Your task to perform on an android device: Open Yahoo.com Image 0: 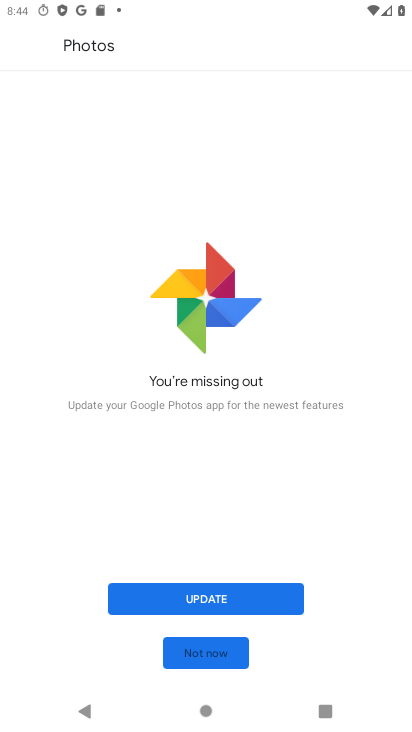
Step 0: press back button
Your task to perform on an android device: Open Yahoo.com Image 1: 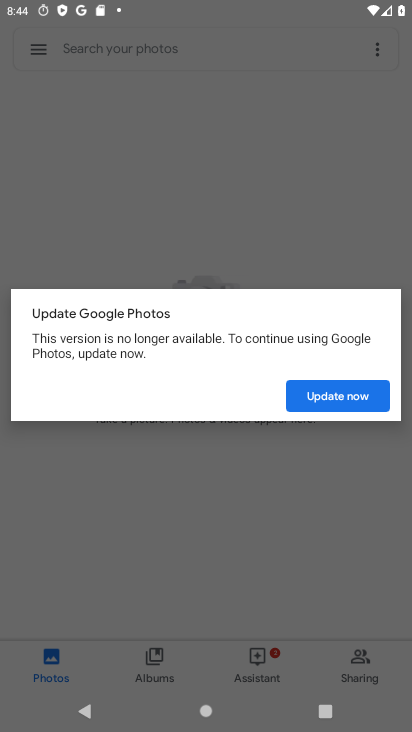
Step 1: press home button
Your task to perform on an android device: Open Yahoo.com Image 2: 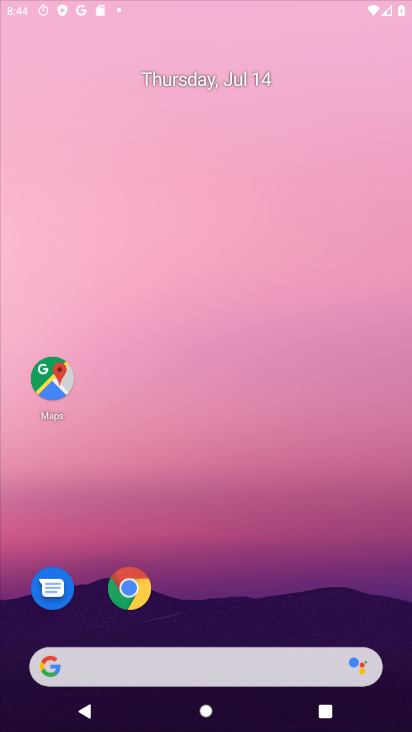
Step 2: click (201, 190)
Your task to perform on an android device: Open Yahoo.com Image 3: 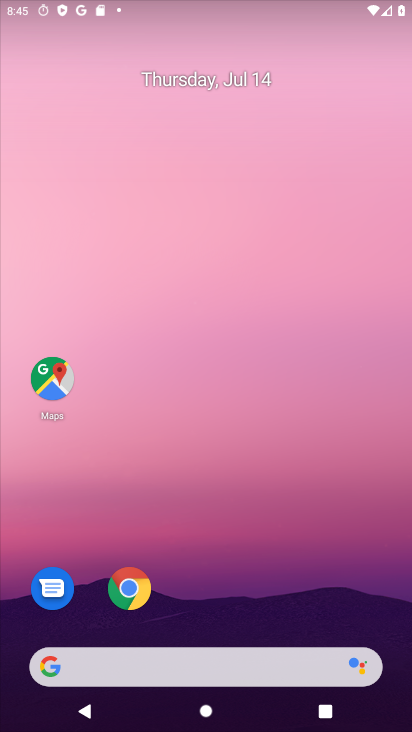
Step 3: drag from (230, 729) to (160, 205)
Your task to perform on an android device: Open Yahoo.com Image 4: 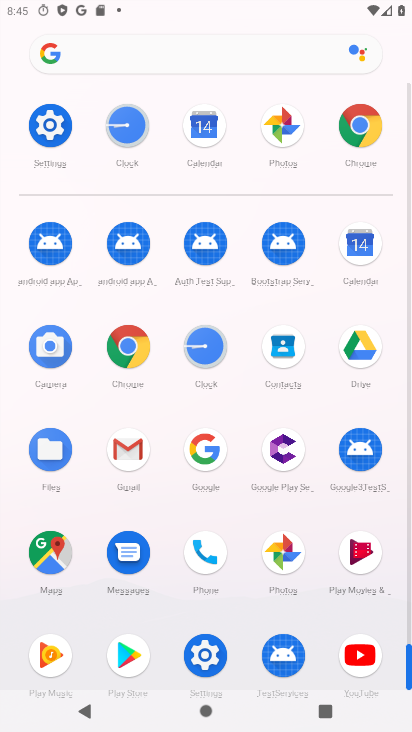
Step 4: click (354, 133)
Your task to perform on an android device: Open Yahoo.com Image 5: 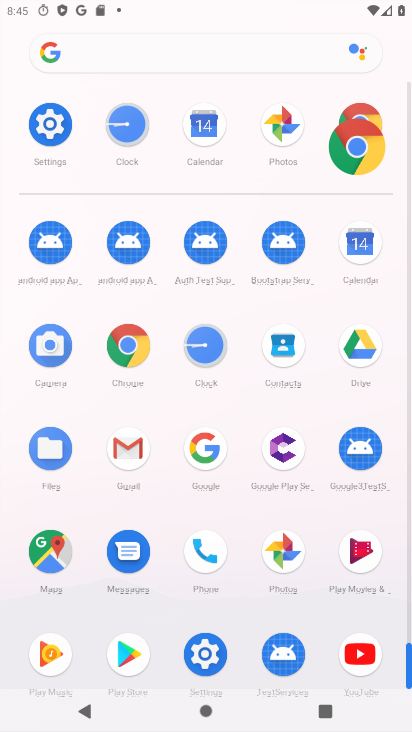
Step 5: click (353, 126)
Your task to perform on an android device: Open Yahoo.com Image 6: 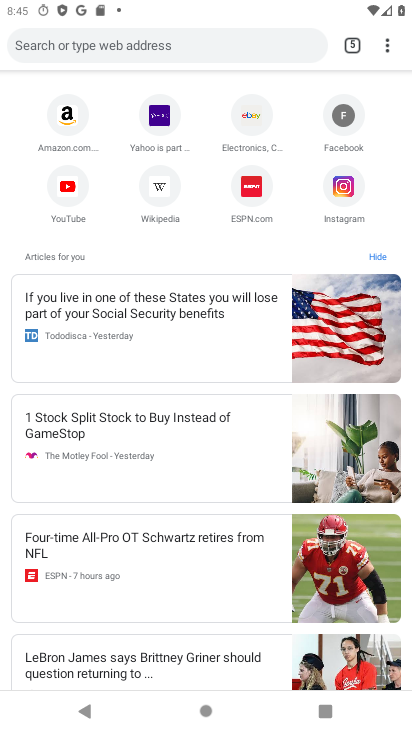
Step 6: click (158, 95)
Your task to perform on an android device: Open Yahoo.com Image 7: 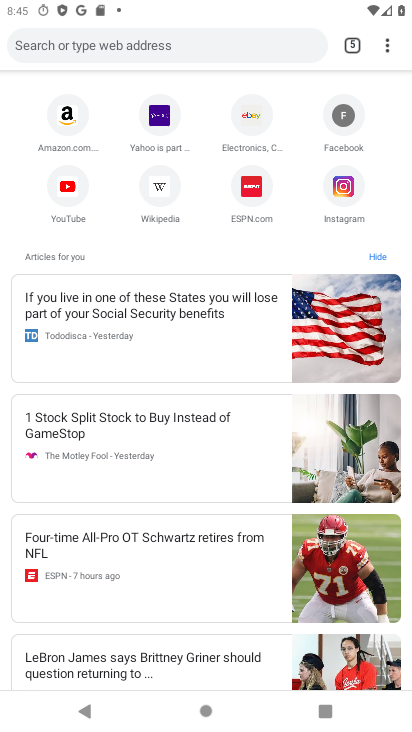
Step 7: click (156, 110)
Your task to perform on an android device: Open Yahoo.com Image 8: 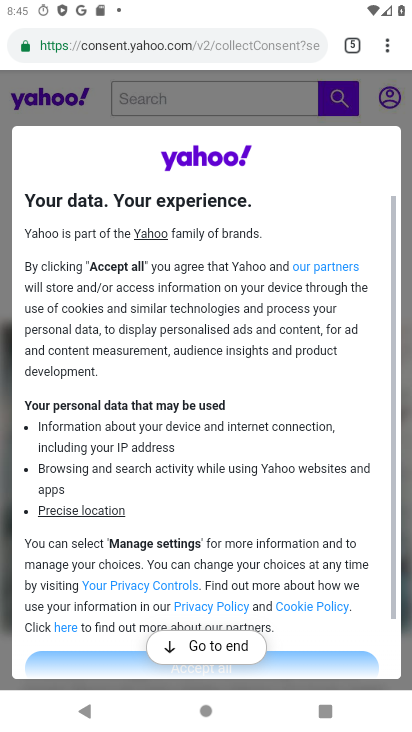
Step 8: task complete